Your task to perform on an android device: Empty the shopping cart on walmart.com. Add razer huntsman to the cart on walmart.com Image 0: 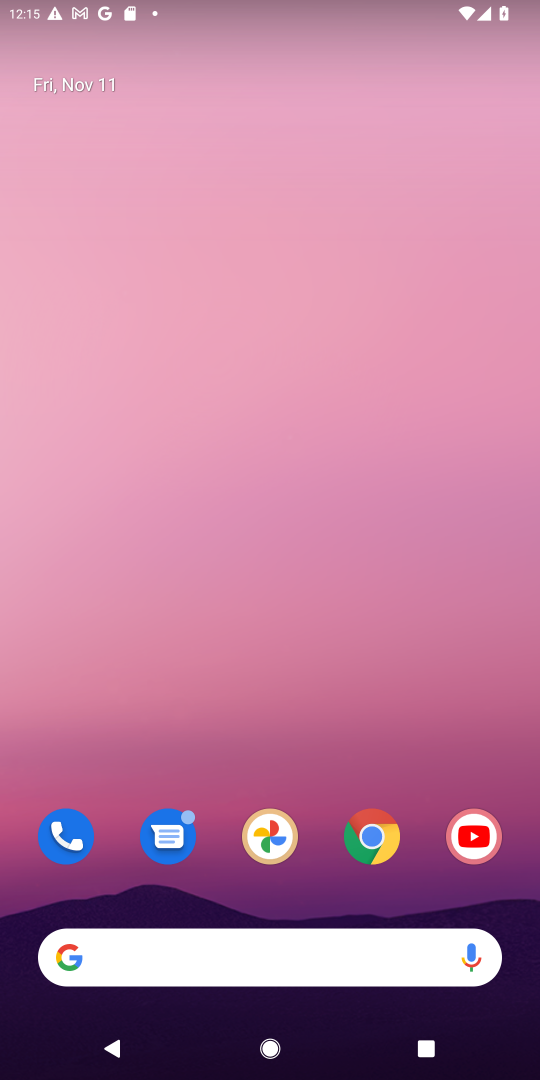
Step 0: click (288, 948)
Your task to perform on an android device: Empty the shopping cart on walmart.com. Add razer huntsman to the cart on walmart.com Image 1: 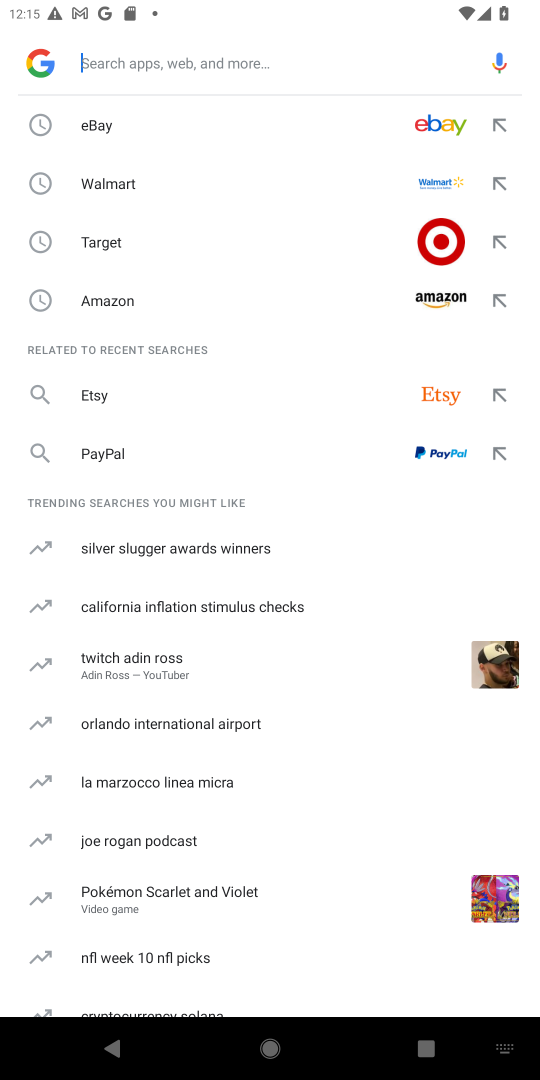
Step 1: click (142, 180)
Your task to perform on an android device: Empty the shopping cart on walmart.com. Add razer huntsman to the cart on walmart.com Image 2: 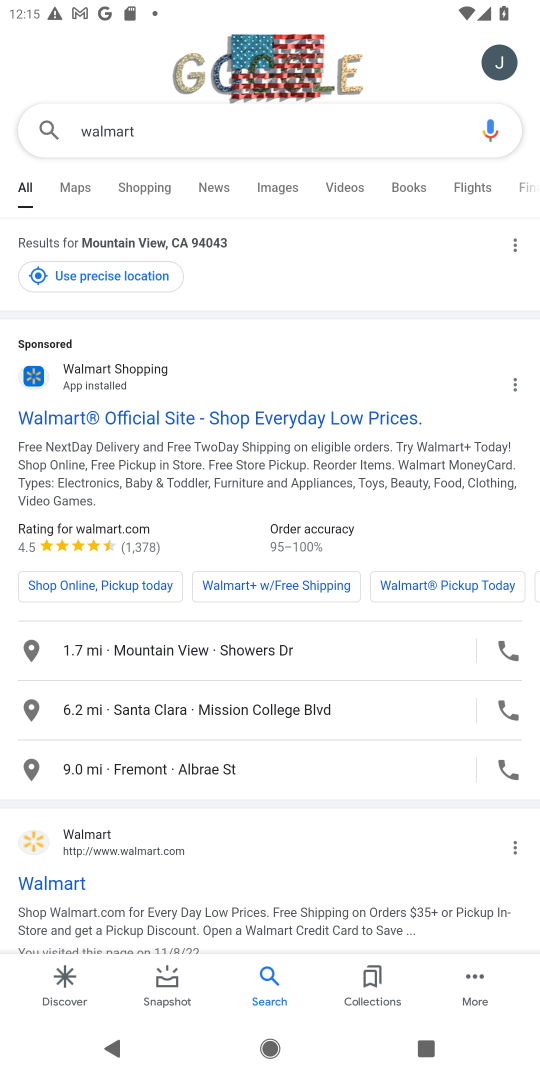
Step 2: click (57, 889)
Your task to perform on an android device: Empty the shopping cart on walmart.com. Add razer huntsman to the cart on walmart.com Image 3: 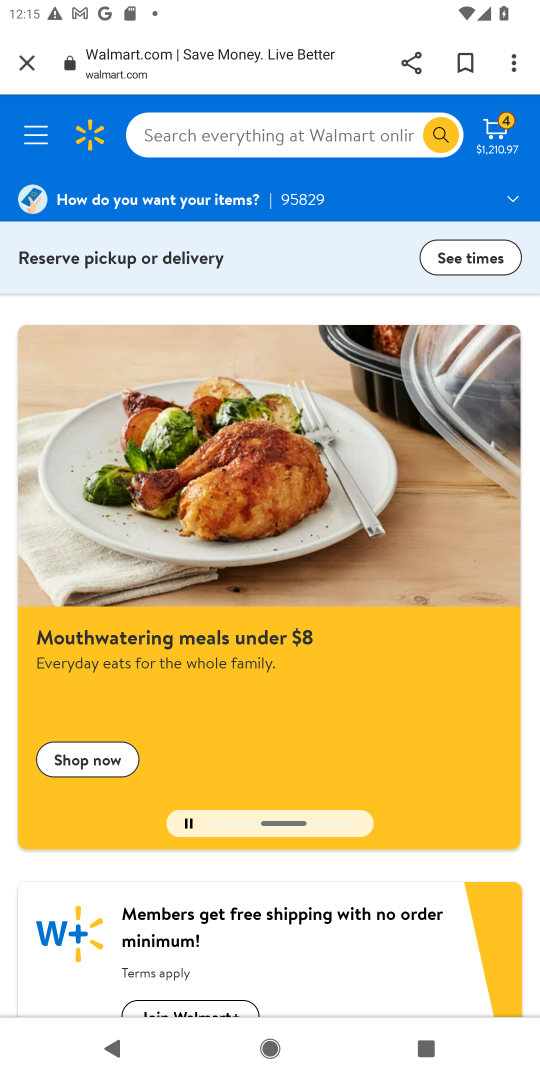
Step 3: click (258, 139)
Your task to perform on an android device: Empty the shopping cart on walmart.com. Add razer huntsman to the cart on walmart.com Image 4: 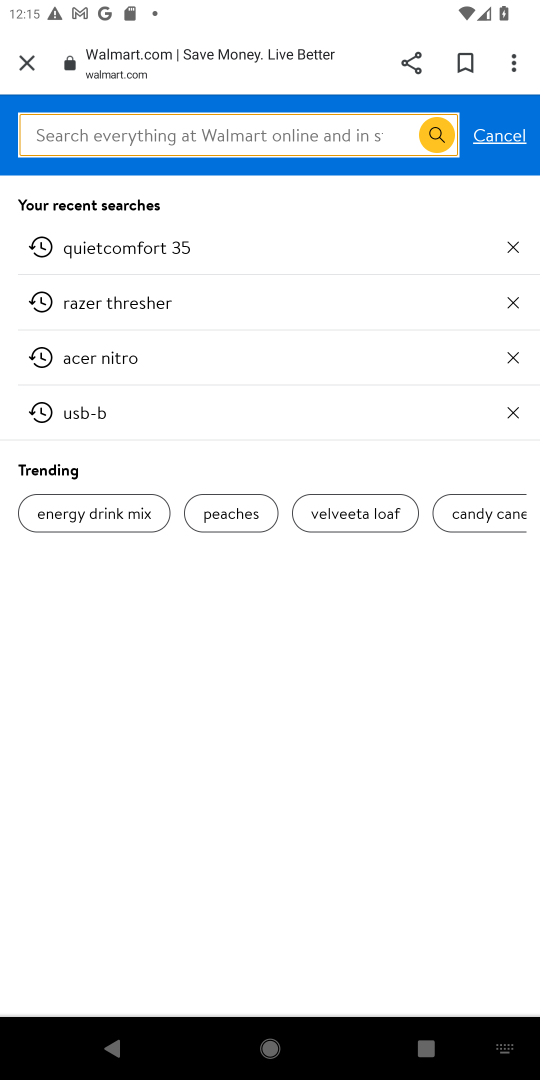
Step 4: type " razer huntsman"
Your task to perform on an android device: Empty the shopping cart on walmart.com. Add razer huntsman to the cart on walmart.com Image 5: 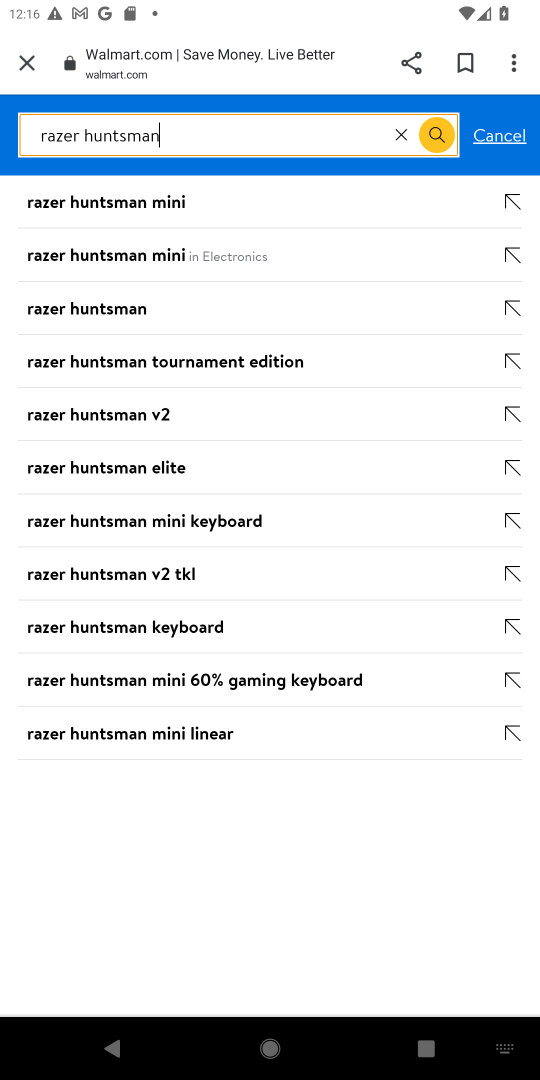
Step 5: click (95, 297)
Your task to perform on an android device: Empty the shopping cart on walmart.com. Add razer huntsman to the cart on walmart.com Image 6: 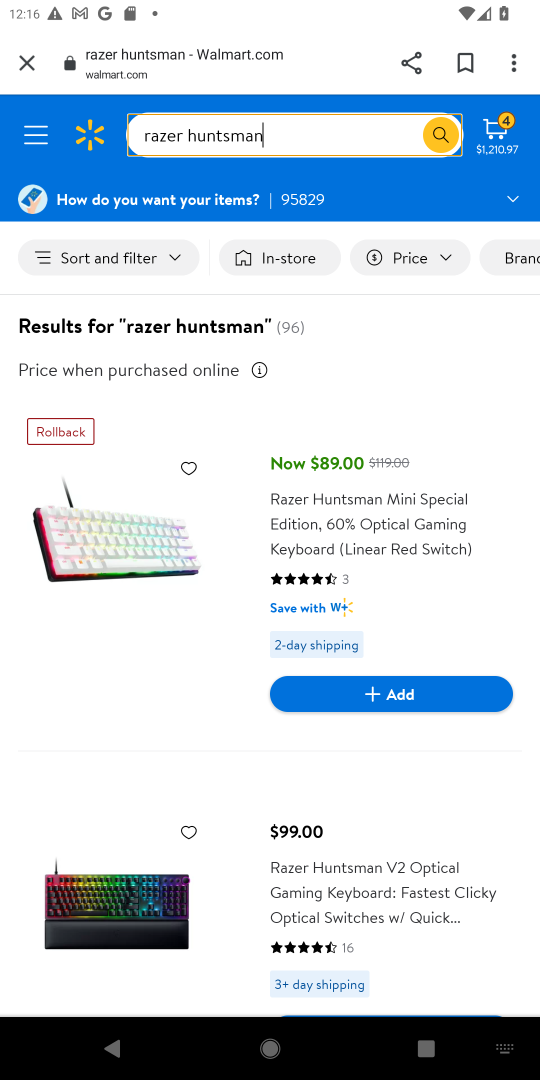
Step 6: click (393, 696)
Your task to perform on an android device: Empty the shopping cart on walmart.com. Add razer huntsman to the cart on walmart.com Image 7: 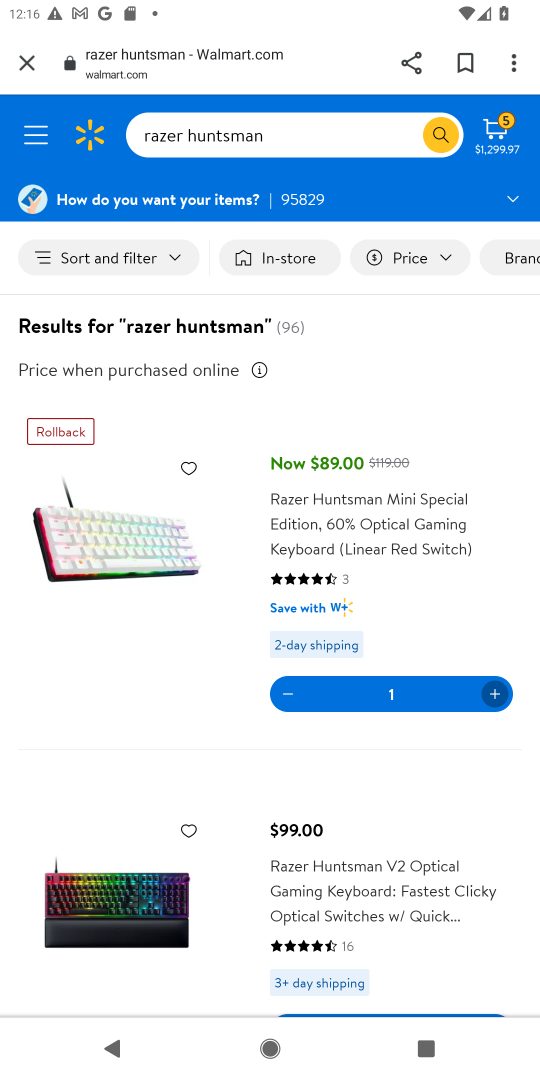
Step 7: task complete